Your task to perform on an android device: change alarm snooze length Image 0: 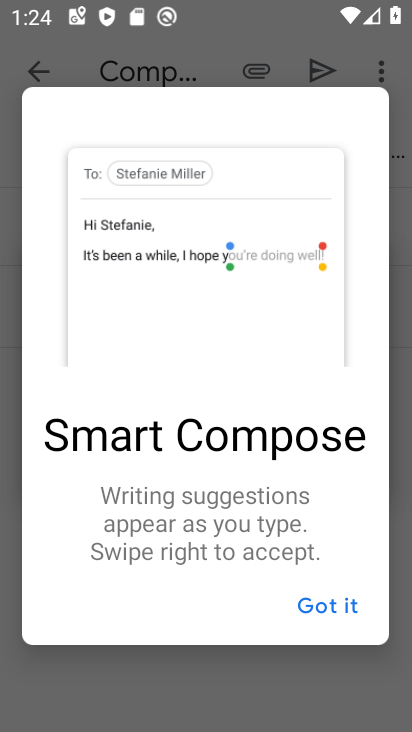
Step 0: press home button
Your task to perform on an android device: change alarm snooze length Image 1: 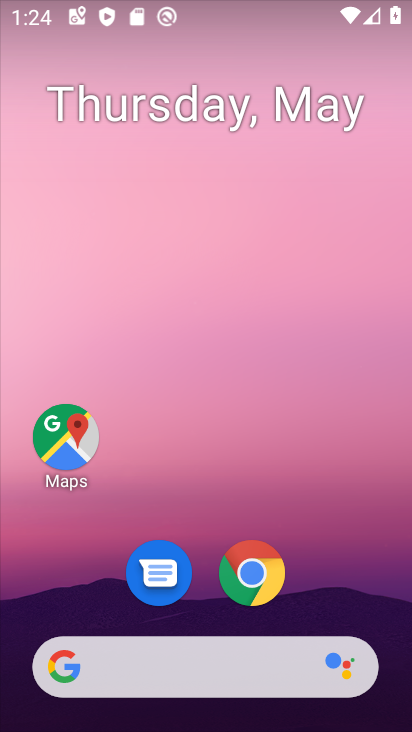
Step 1: drag from (187, 663) to (254, 349)
Your task to perform on an android device: change alarm snooze length Image 2: 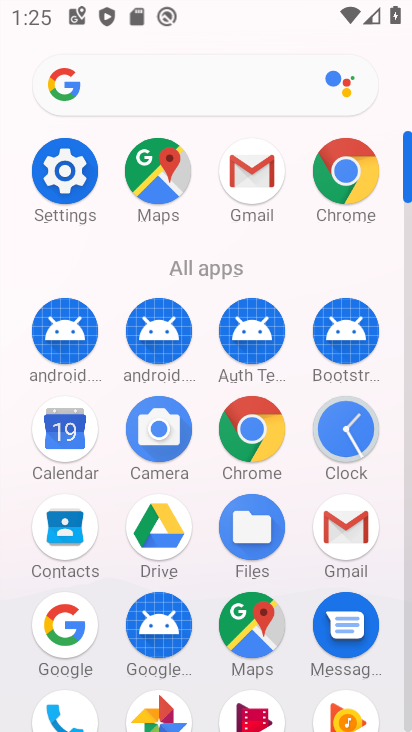
Step 2: click (355, 439)
Your task to perform on an android device: change alarm snooze length Image 3: 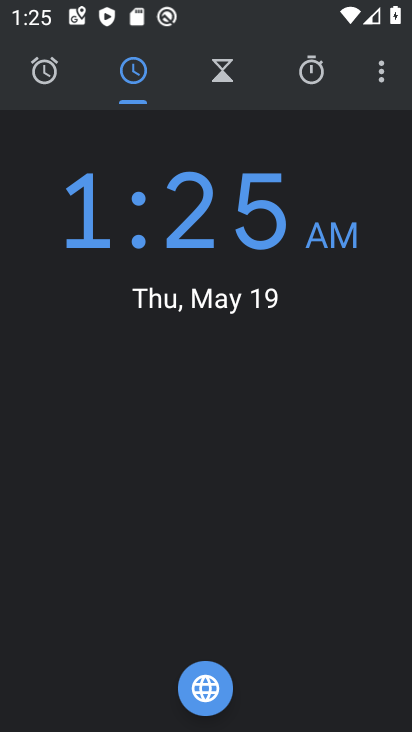
Step 3: drag from (378, 90) to (336, 162)
Your task to perform on an android device: change alarm snooze length Image 4: 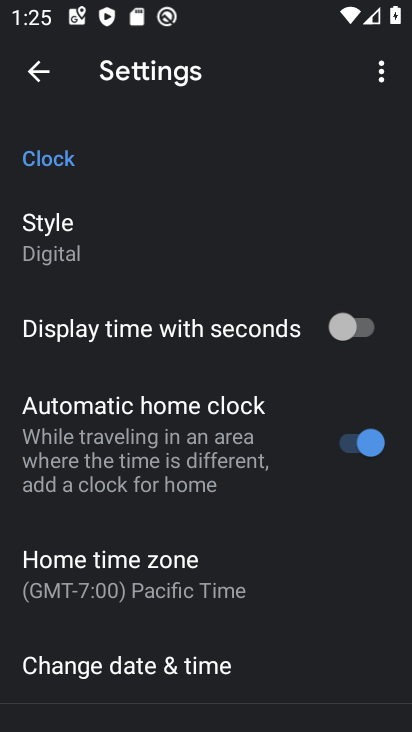
Step 4: drag from (142, 616) to (198, 169)
Your task to perform on an android device: change alarm snooze length Image 5: 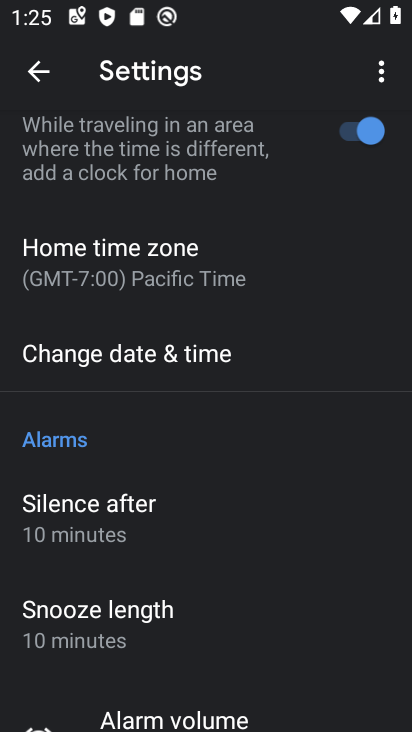
Step 5: click (139, 621)
Your task to perform on an android device: change alarm snooze length Image 6: 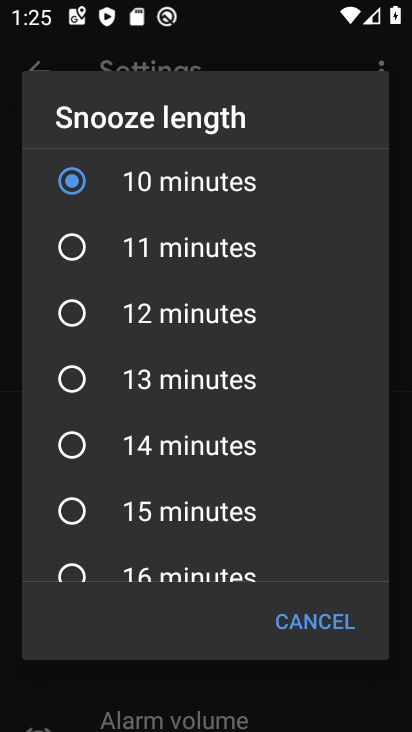
Step 6: click (85, 257)
Your task to perform on an android device: change alarm snooze length Image 7: 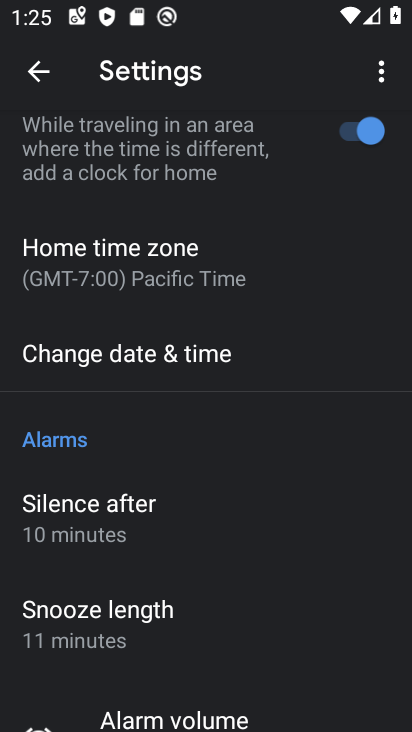
Step 7: task complete